Your task to perform on an android device: change timer sound Image 0: 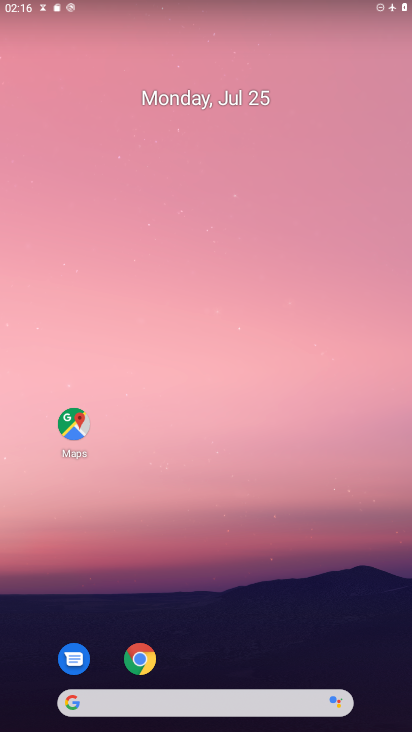
Step 0: drag from (250, 638) to (243, 119)
Your task to perform on an android device: change timer sound Image 1: 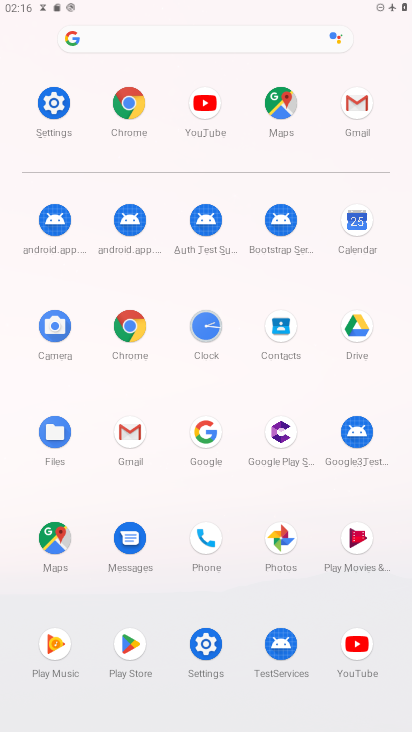
Step 1: click (205, 317)
Your task to perform on an android device: change timer sound Image 2: 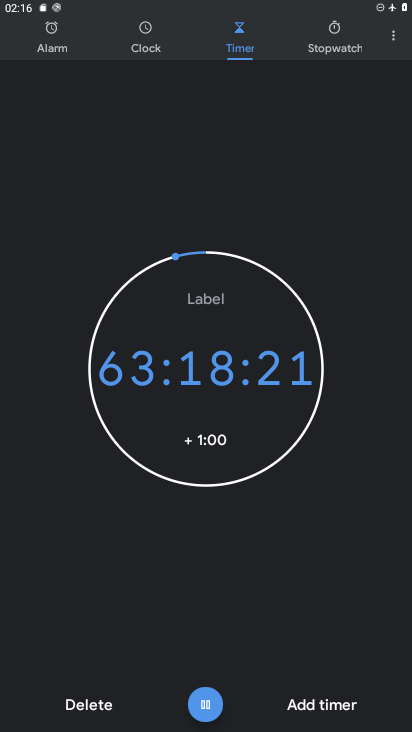
Step 2: click (394, 31)
Your task to perform on an android device: change timer sound Image 3: 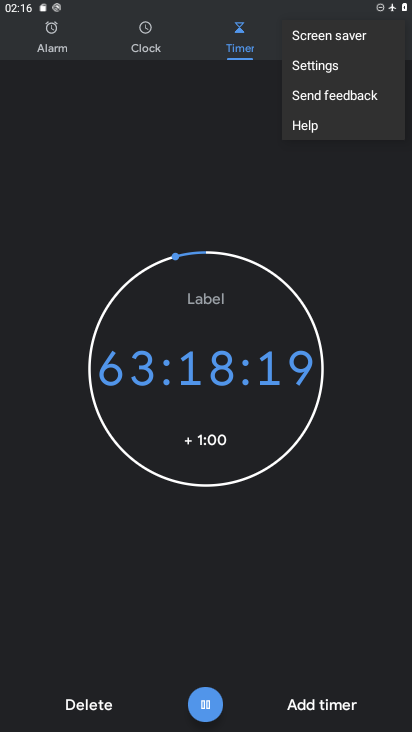
Step 3: click (309, 68)
Your task to perform on an android device: change timer sound Image 4: 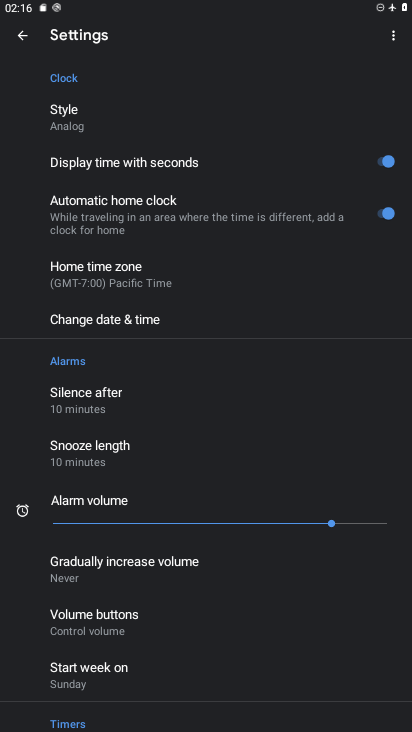
Step 4: drag from (172, 599) to (151, 285)
Your task to perform on an android device: change timer sound Image 5: 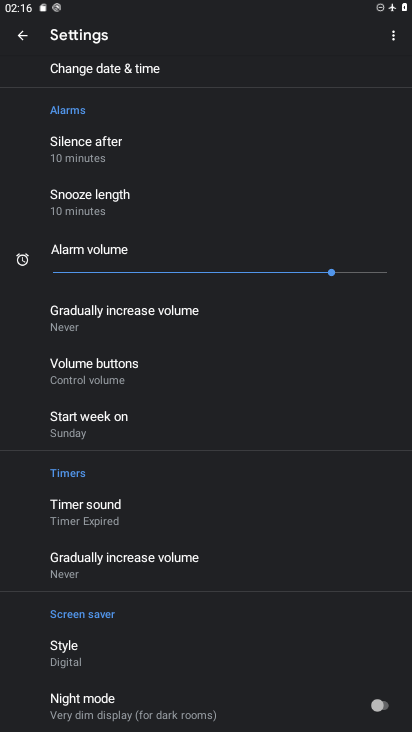
Step 5: click (98, 521)
Your task to perform on an android device: change timer sound Image 6: 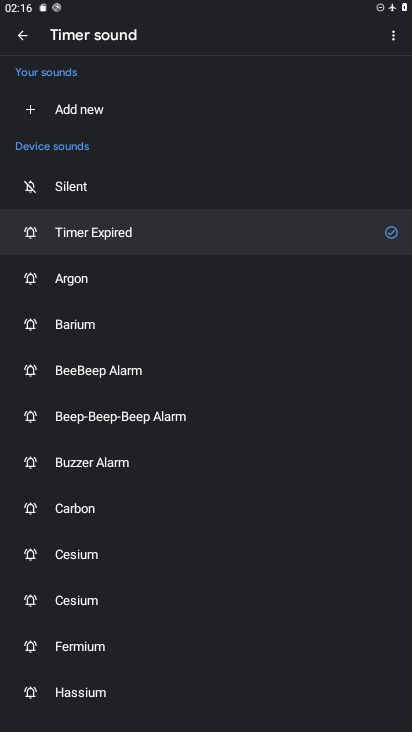
Step 6: click (94, 595)
Your task to perform on an android device: change timer sound Image 7: 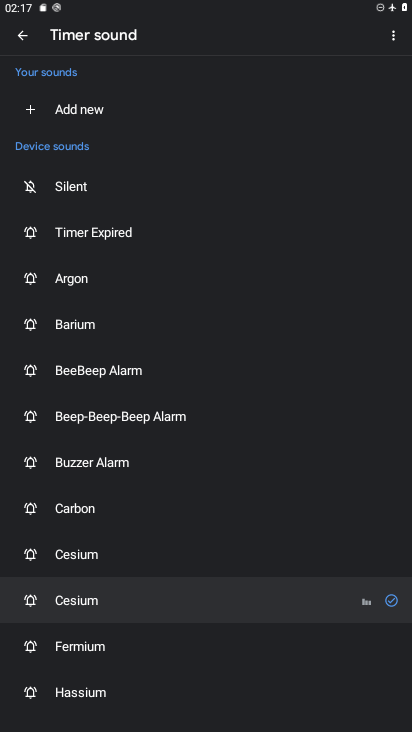
Step 7: task complete